Your task to perform on an android device: turn off smart reply in the gmail app Image 0: 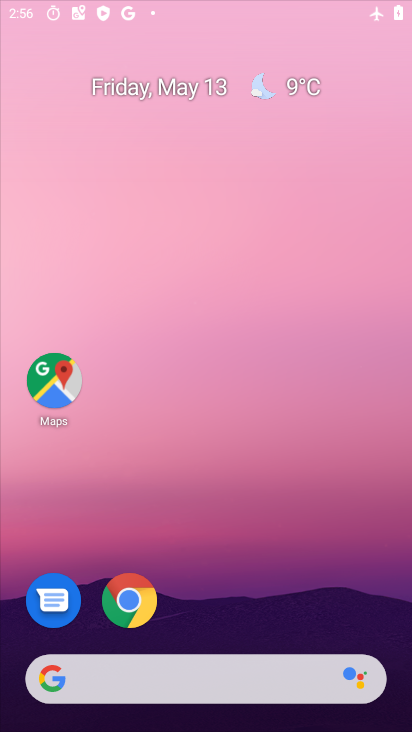
Step 0: click (327, 232)
Your task to perform on an android device: turn off smart reply in the gmail app Image 1: 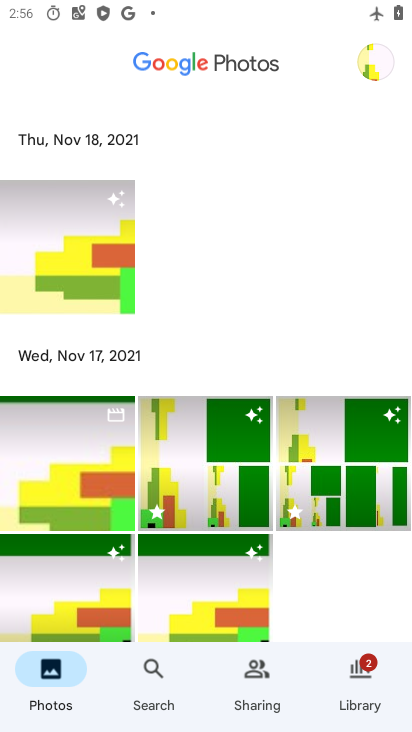
Step 1: click (364, 587)
Your task to perform on an android device: turn off smart reply in the gmail app Image 2: 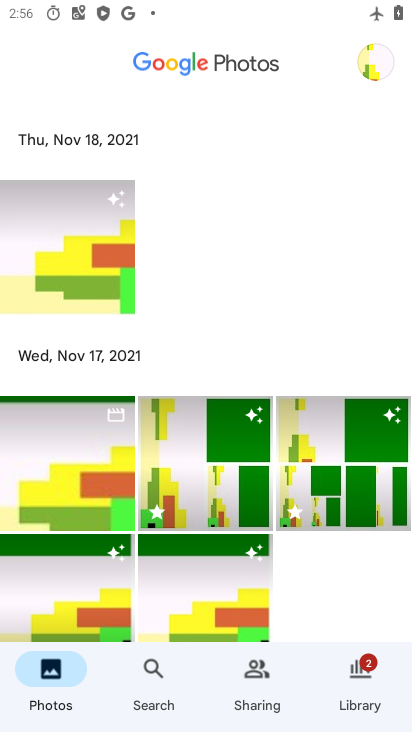
Step 2: press home button
Your task to perform on an android device: turn off smart reply in the gmail app Image 3: 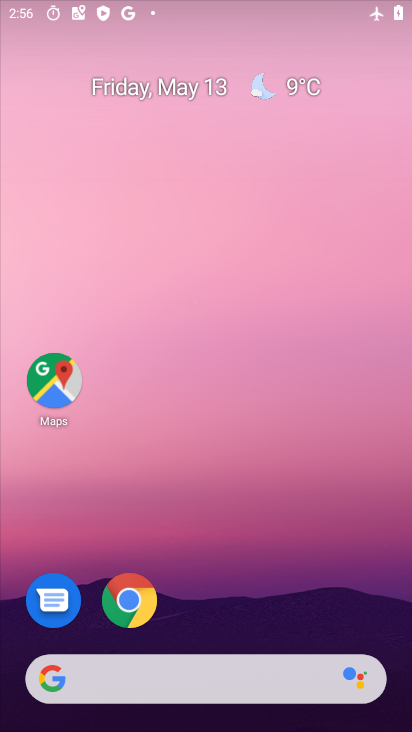
Step 3: drag from (159, 610) to (216, 180)
Your task to perform on an android device: turn off smart reply in the gmail app Image 4: 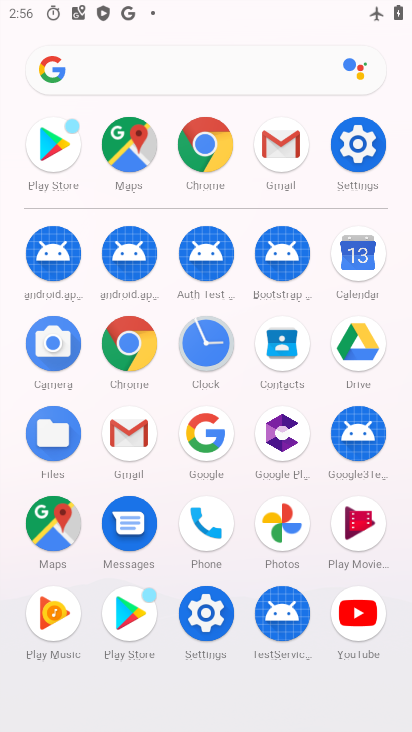
Step 4: click (128, 419)
Your task to perform on an android device: turn off smart reply in the gmail app Image 5: 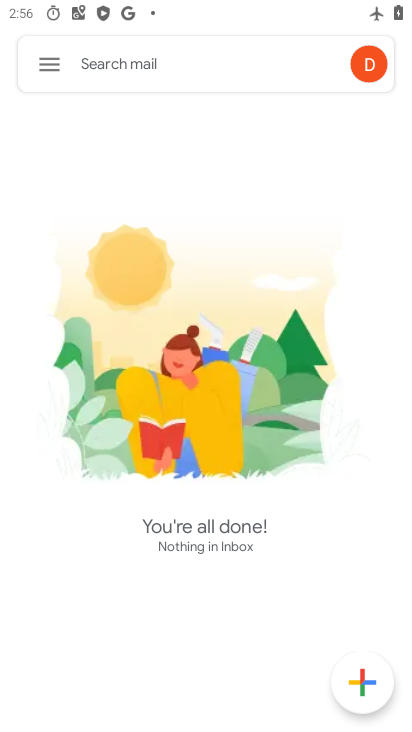
Step 5: click (44, 59)
Your task to perform on an android device: turn off smart reply in the gmail app Image 6: 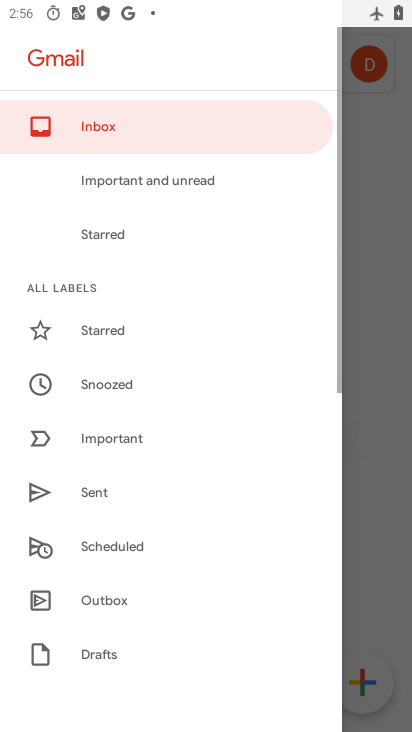
Step 6: drag from (165, 617) to (234, 119)
Your task to perform on an android device: turn off smart reply in the gmail app Image 7: 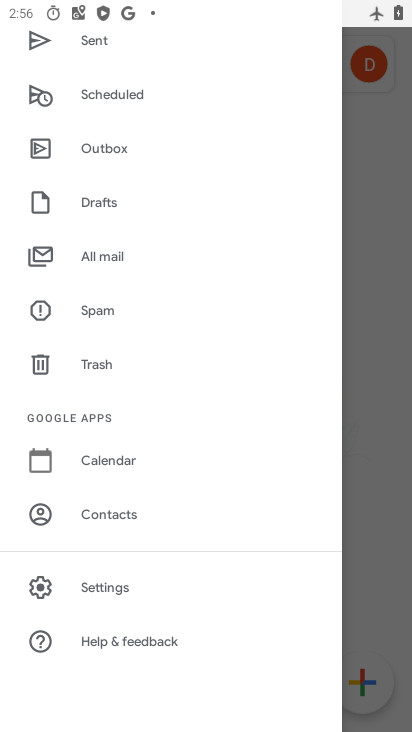
Step 7: click (141, 583)
Your task to perform on an android device: turn off smart reply in the gmail app Image 8: 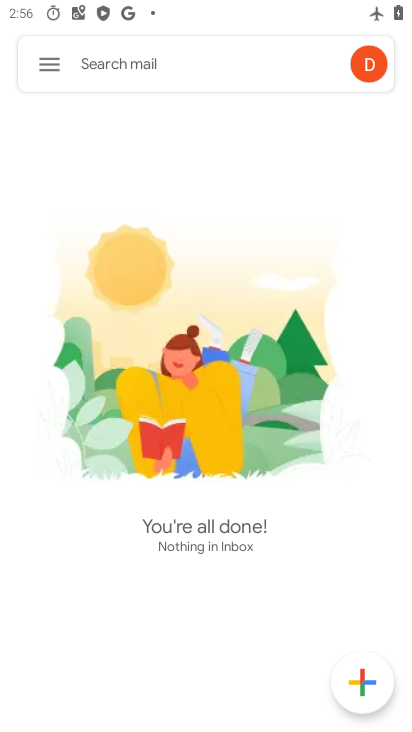
Step 8: drag from (141, 582) to (196, 166)
Your task to perform on an android device: turn off smart reply in the gmail app Image 9: 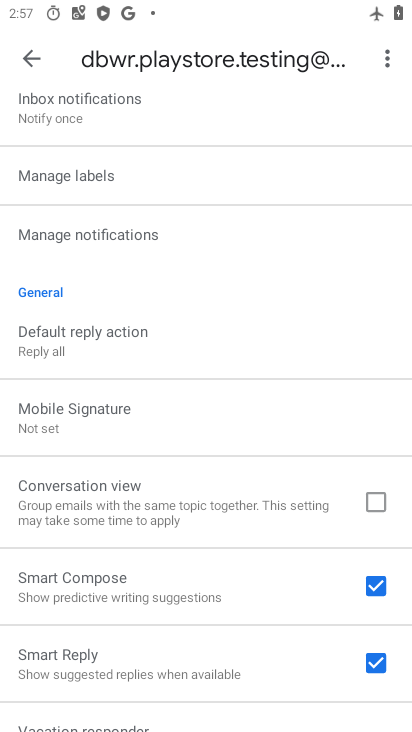
Step 9: drag from (280, 493) to (306, 217)
Your task to perform on an android device: turn off smart reply in the gmail app Image 10: 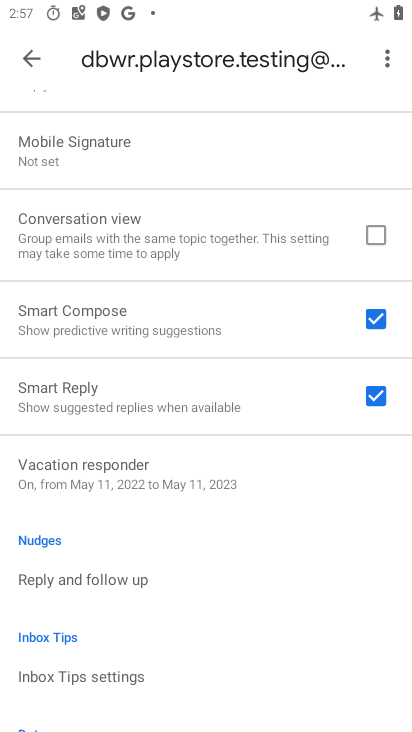
Step 10: click (378, 388)
Your task to perform on an android device: turn off smart reply in the gmail app Image 11: 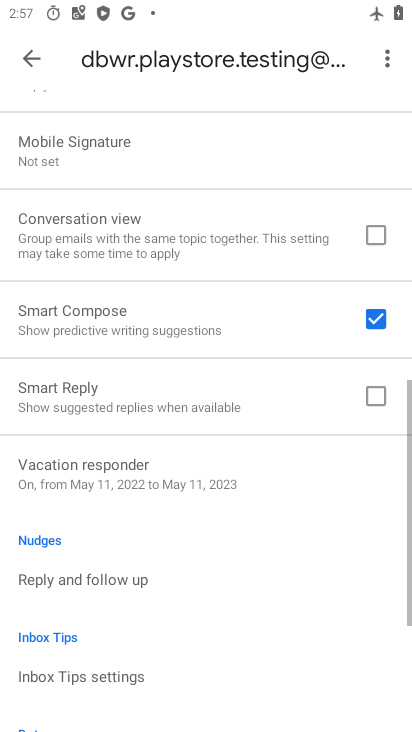
Step 11: task complete